Your task to perform on an android device: Open the stopwatch Image 0: 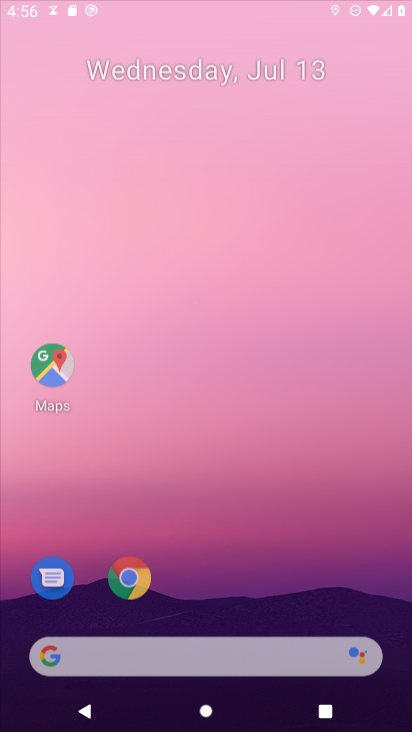
Step 0: click (198, 276)
Your task to perform on an android device: Open the stopwatch Image 1: 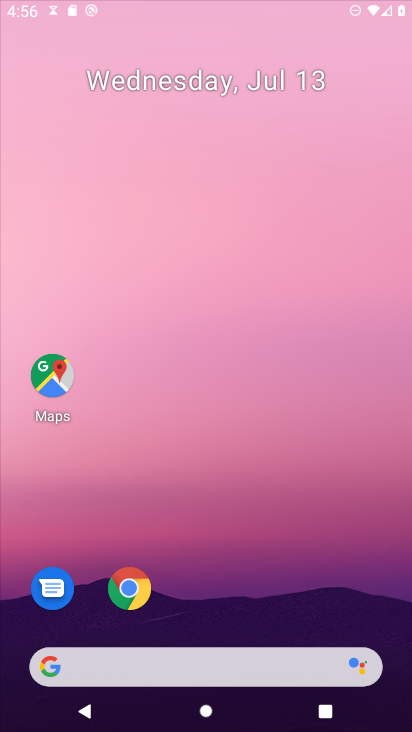
Step 1: drag from (202, 570) to (151, 169)
Your task to perform on an android device: Open the stopwatch Image 2: 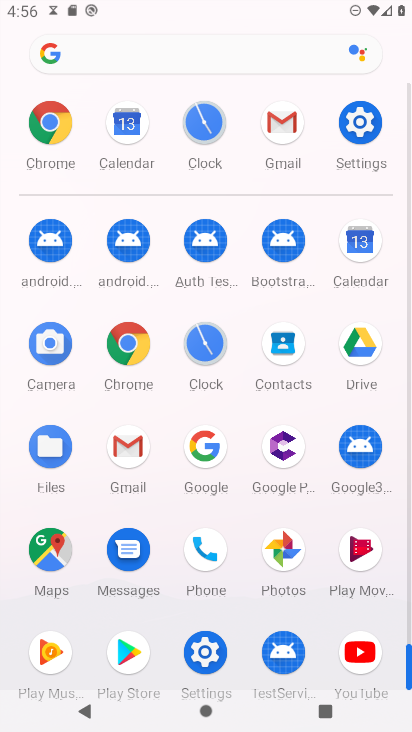
Step 2: click (200, 324)
Your task to perform on an android device: Open the stopwatch Image 3: 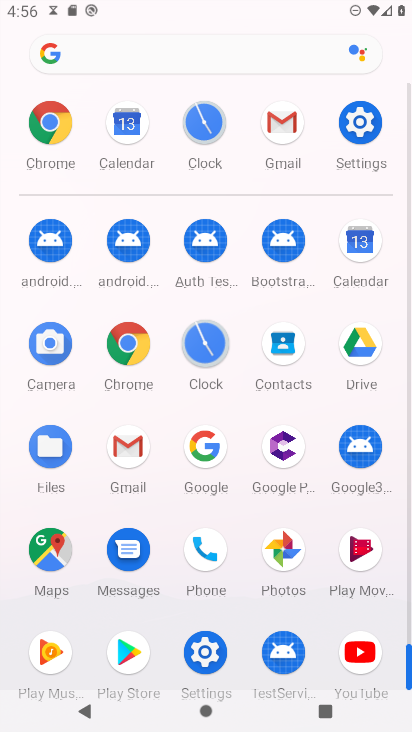
Step 3: click (195, 336)
Your task to perform on an android device: Open the stopwatch Image 4: 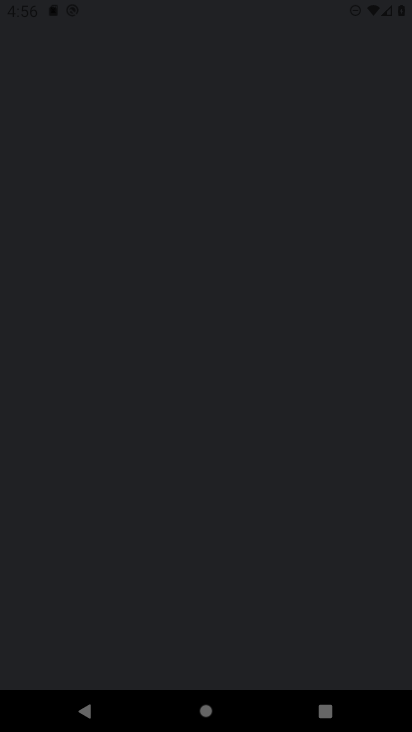
Step 4: click (197, 338)
Your task to perform on an android device: Open the stopwatch Image 5: 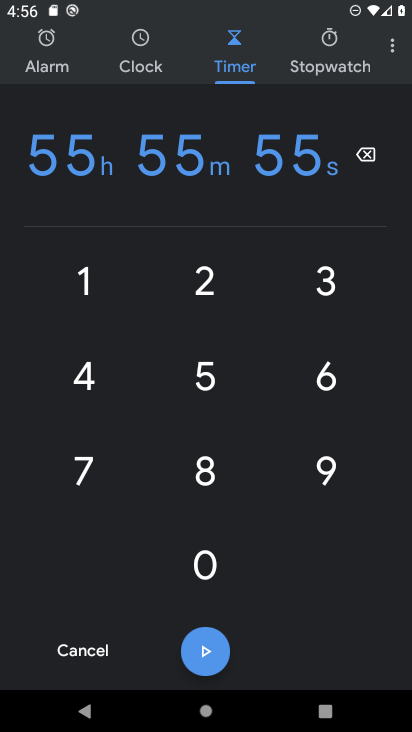
Step 5: click (325, 29)
Your task to perform on an android device: Open the stopwatch Image 6: 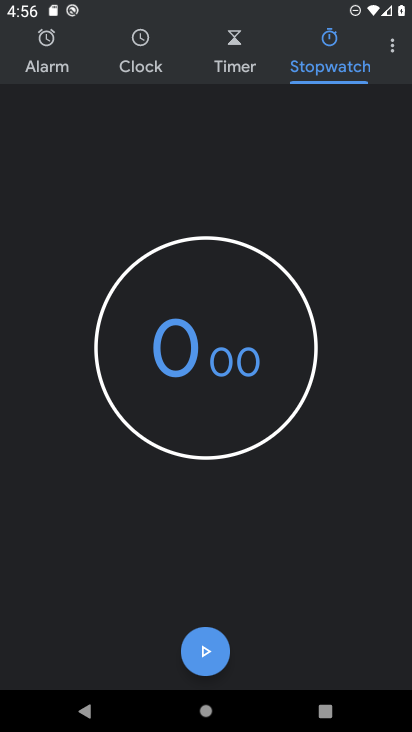
Step 6: task complete